Your task to perform on an android device: check battery use Image 0: 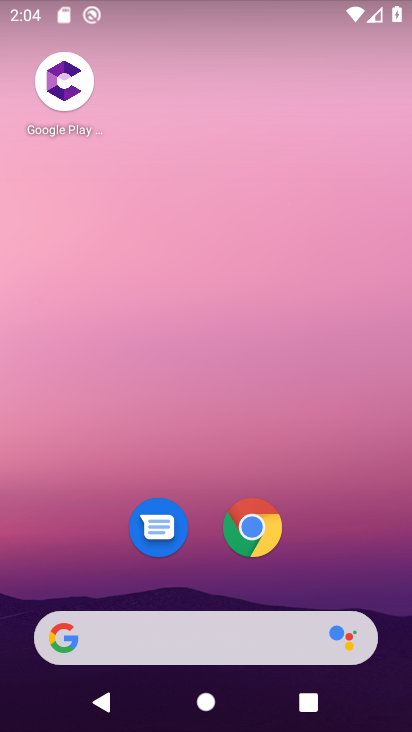
Step 0: drag from (217, 600) to (276, 3)
Your task to perform on an android device: check battery use Image 1: 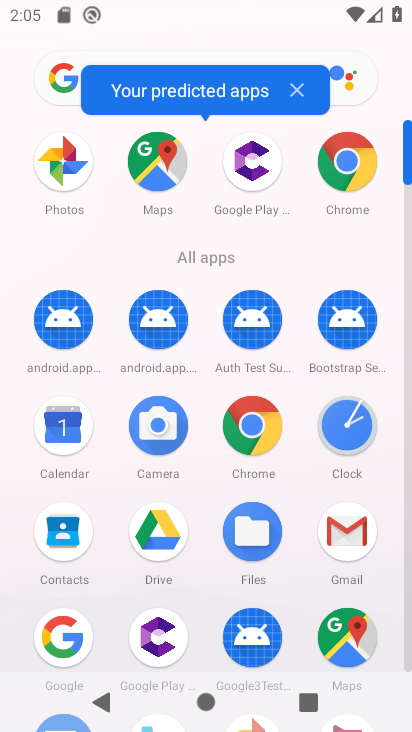
Step 1: drag from (197, 570) to (287, 10)
Your task to perform on an android device: check battery use Image 2: 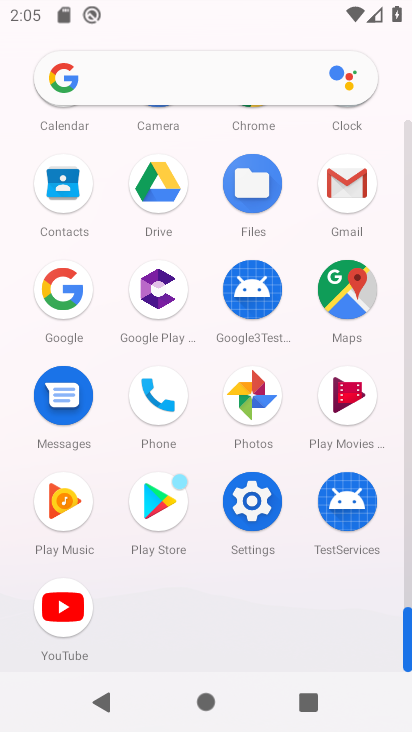
Step 2: click (249, 528)
Your task to perform on an android device: check battery use Image 3: 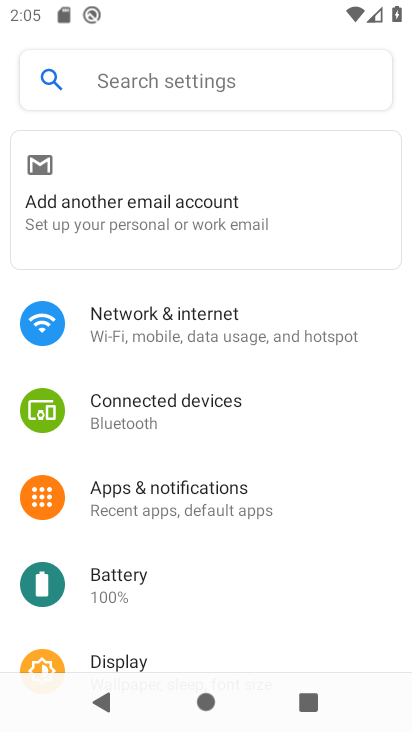
Step 3: click (158, 581)
Your task to perform on an android device: check battery use Image 4: 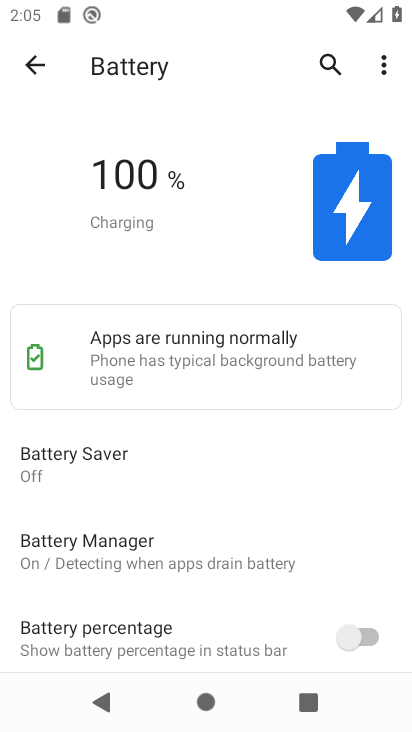
Step 4: click (385, 77)
Your task to perform on an android device: check battery use Image 5: 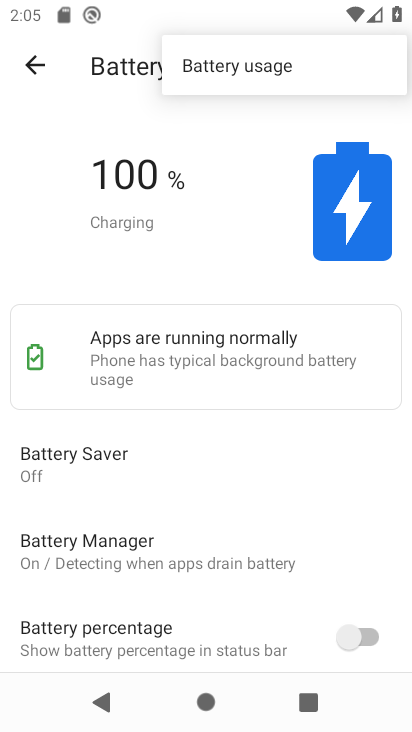
Step 5: click (250, 65)
Your task to perform on an android device: check battery use Image 6: 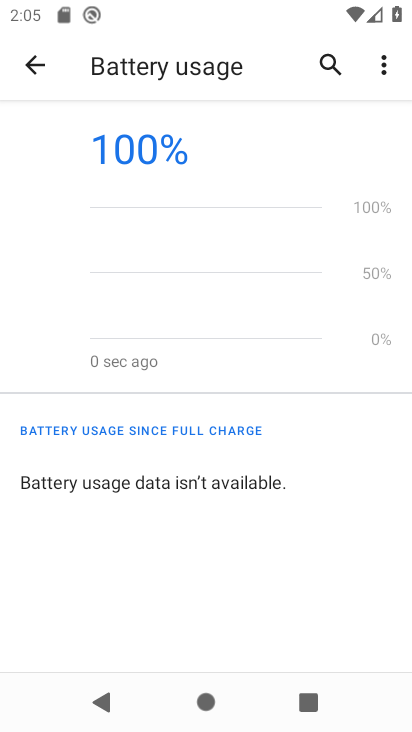
Step 6: task complete